Your task to perform on an android device: Open calendar and show me the second week of next month Image 0: 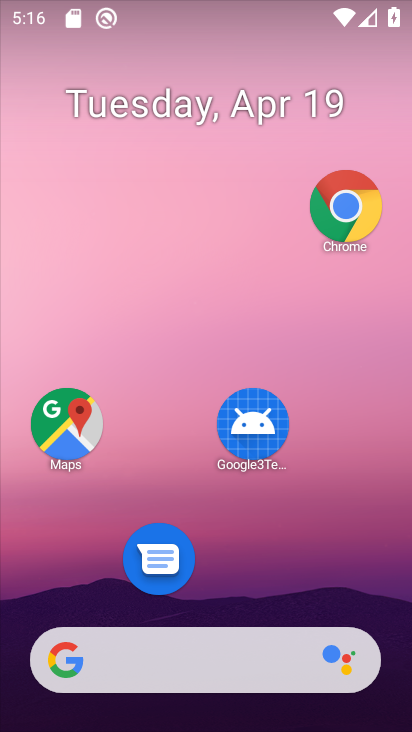
Step 0: drag from (251, 673) to (265, 205)
Your task to perform on an android device: Open calendar and show me the second week of next month Image 1: 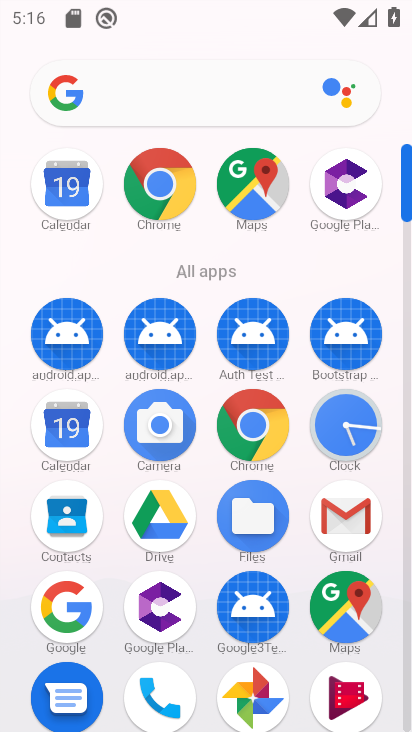
Step 1: click (70, 432)
Your task to perform on an android device: Open calendar and show me the second week of next month Image 2: 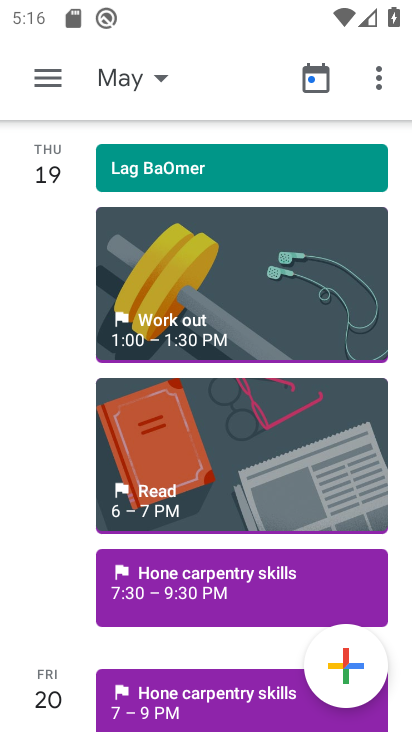
Step 2: drag from (221, 642) to (218, 274)
Your task to perform on an android device: Open calendar and show me the second week of next month Image 3: 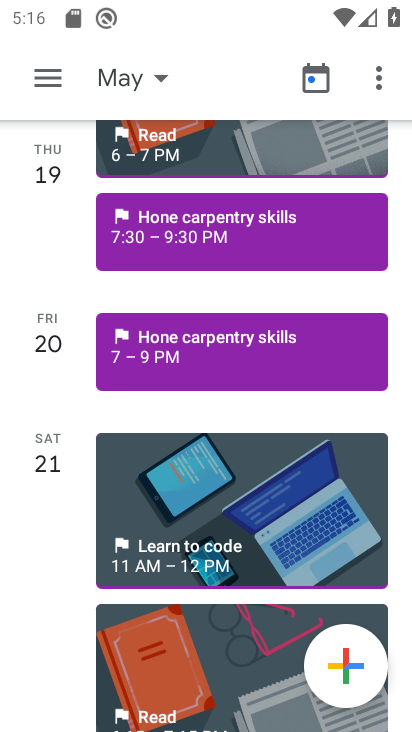
Step 3: click (165, 74)
Your task to perform on an android device: Open calendar and show me the second week of next month Image 4: 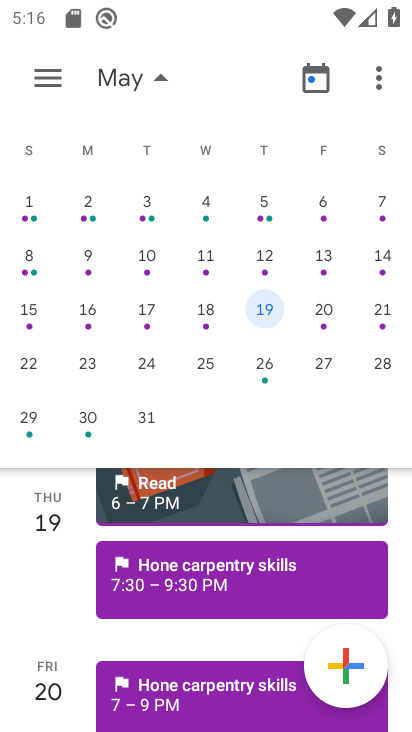
Step 4: click (151, 253)
Your task to perform on an android device: Open calendar and show me the second week of next month Image 5: 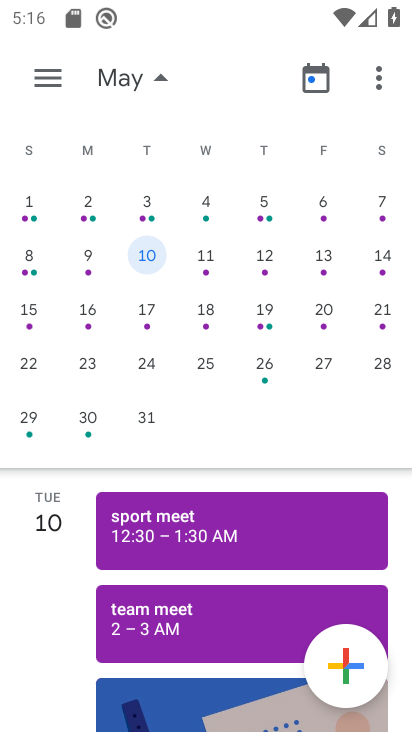
Step 5: task complete